Your task to perform on an android device: Open the Play Movies app and select the watchlist tab. Image 0: 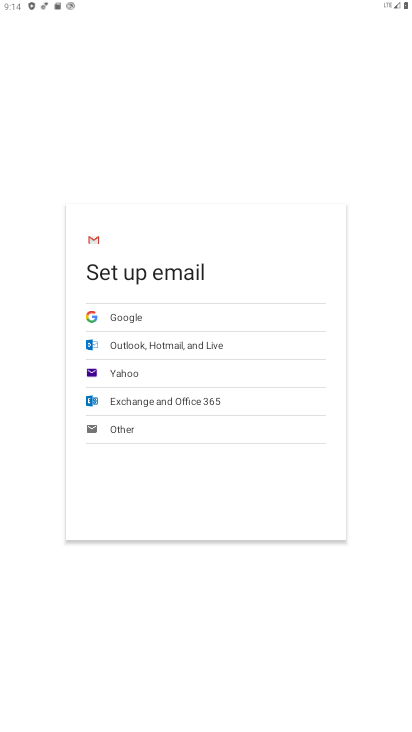
Step 0: press home button
Your task to perform on an android device: Open the Play Movies app and select the watchlist tab. Image 1: 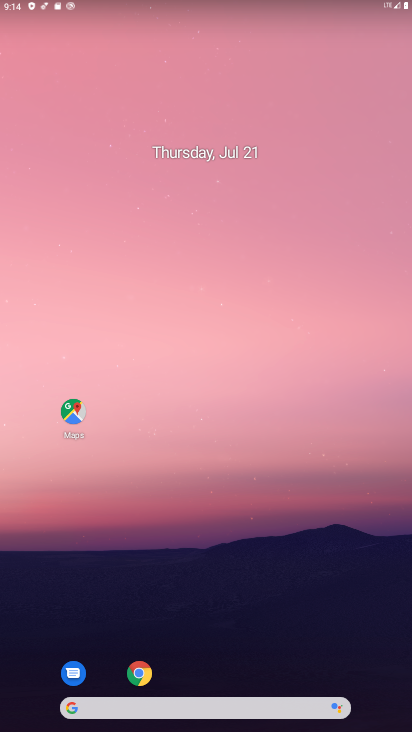
Step 1: drag from (229, 652) to (248, 201)
Your task to perform on an android device: Open the Play Movies app and select the watchlist tab. Image 2: 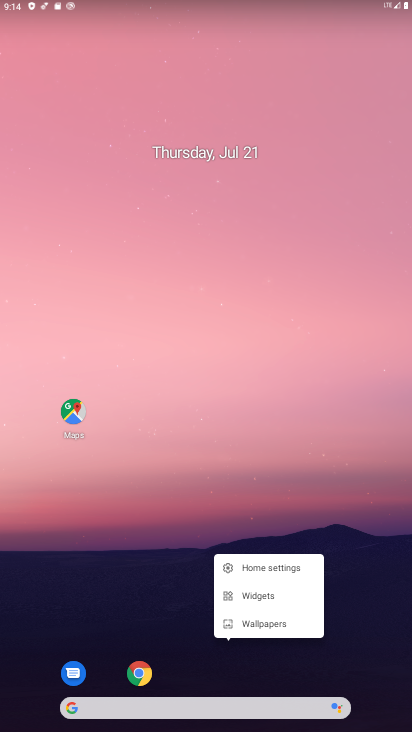
Step 2: click (213, 376)
Your task to perform on an android device: Open the Play Movies app and select the watchlist tab. Image 3: 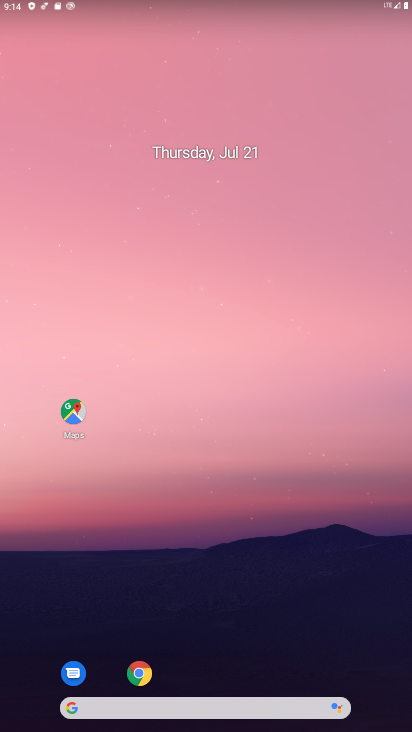
Step 3: drag from (186, 644) to (186, 153)
Your task to perform on an android device: Open the Play Movies app and select the watchlist tab. Image 4: 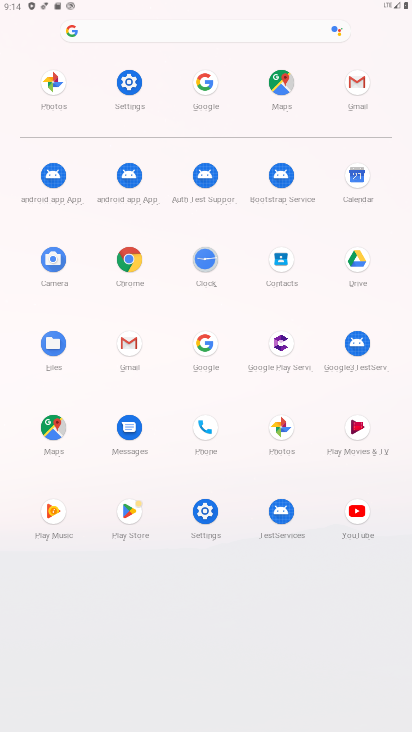
Step 4: click (343, 429)
Your task to perform on an android device: Open the Play Movies app and select the watchlist tab. Image 5: 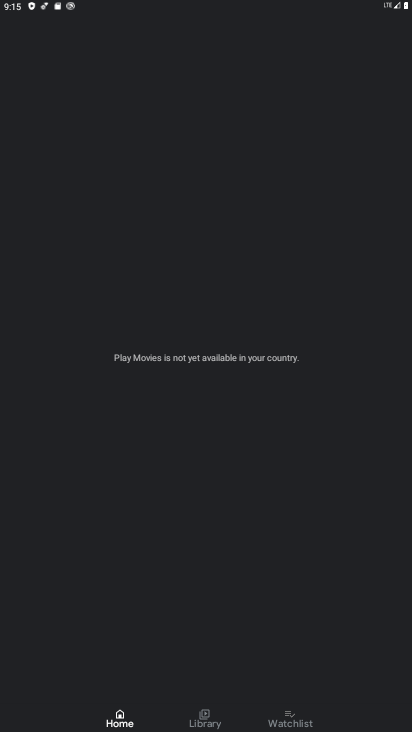
Step 5: click (295, 718)
Your task to perform on an android device: Open the Play Movies app and select the watchlist tab. Image 6: 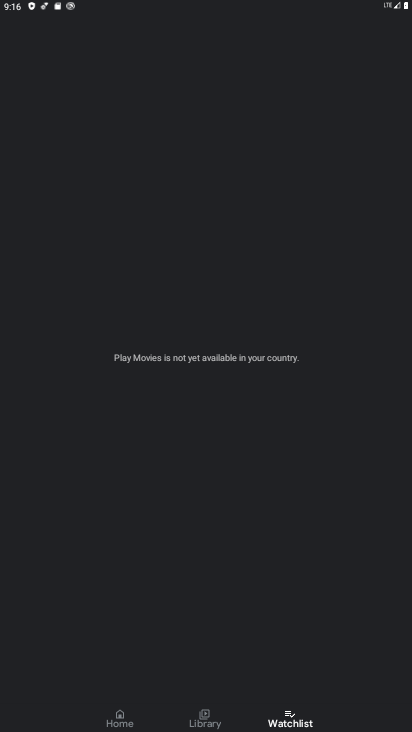
Step 6: task complete